Your task to perform on an android device: open app "Microsoft Authenticator" (install if not already installed) and go to login screen Image 0: 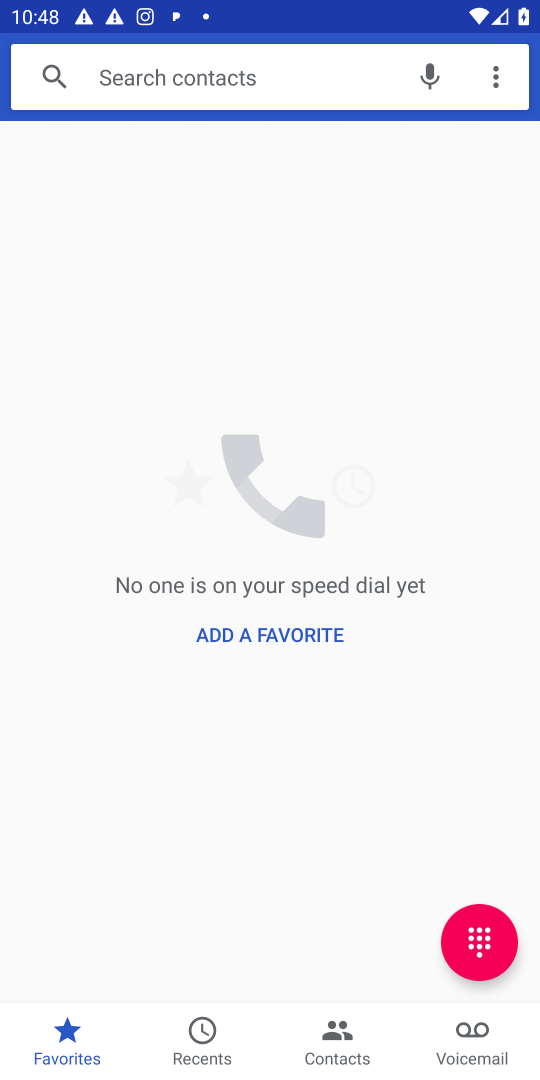
Step 0: press home button
Your task to perform on an android device: open app "Microsoft Authenticator" (install if not already installed) and go to login screen Image 1: 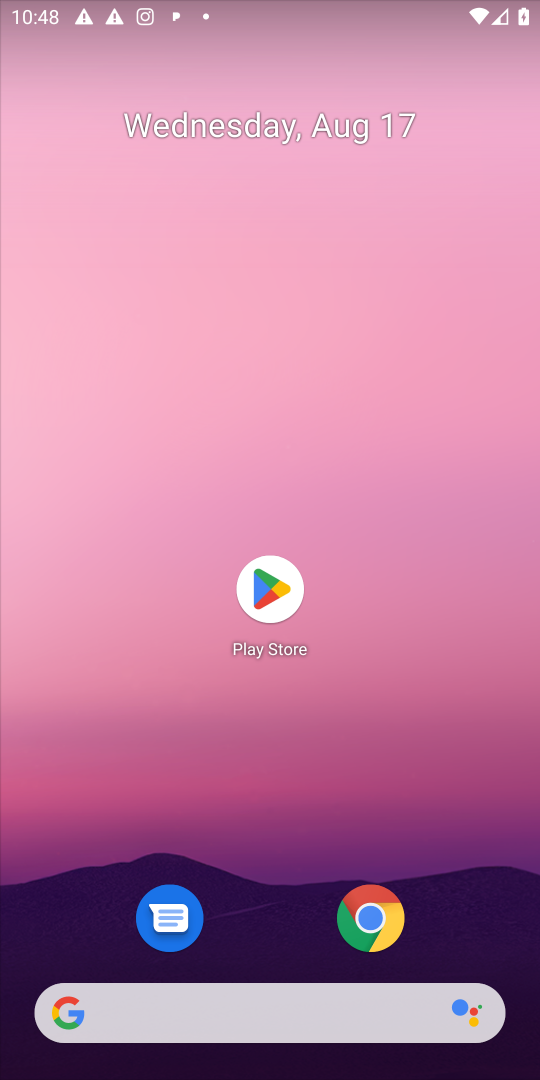
Step 1: click (266, 595)
Your task to perform on an android device: open app "Microsoft Authenticator" (install if not already installed) and go to login screen Image 2: 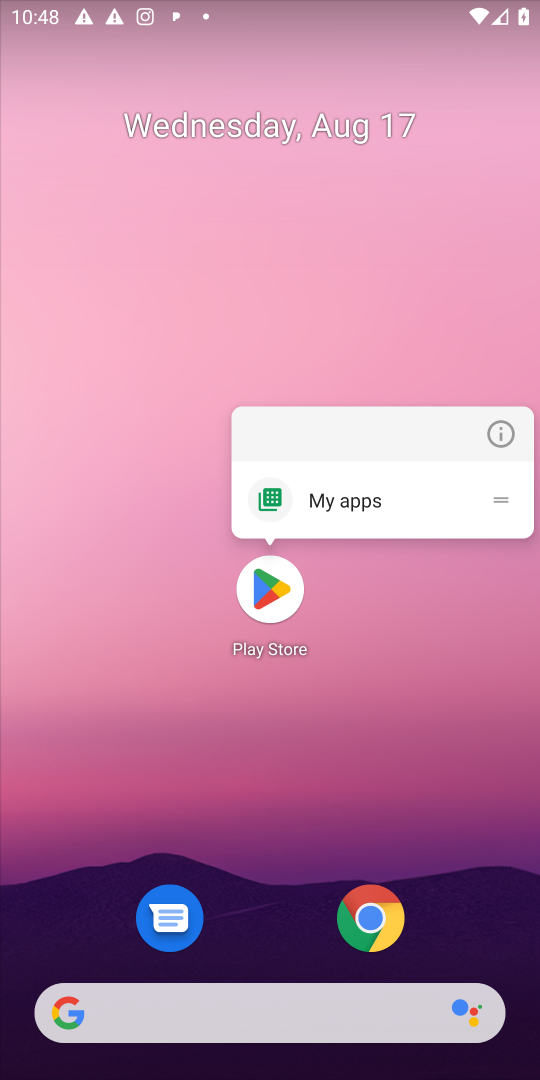
Step 2: click (266, 595)
Your task to perform on an android device: open app "Microsoft Authenticator" (install if not already installed) and go to login screen Image 3: 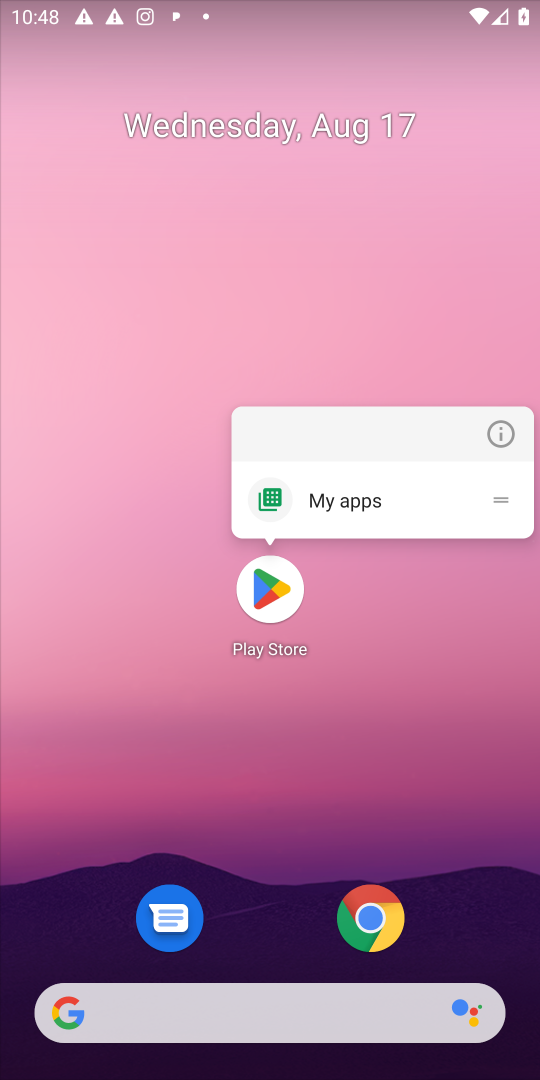
Step 3: click (266, 595)
Your task to perform on an android device: open app "Microsoft Authenticator" (install if not already installed) and go to login screen Image 4: 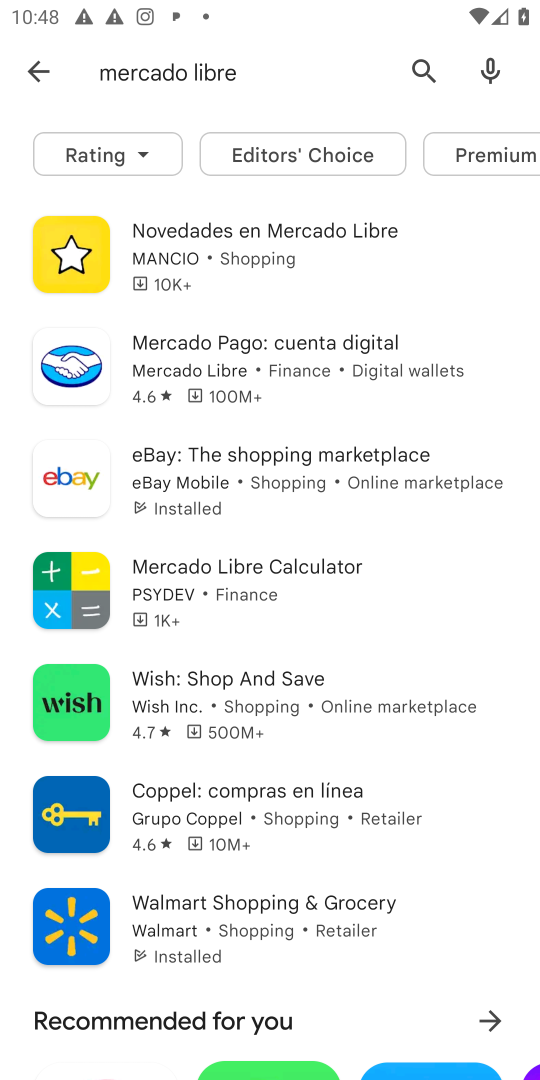
Step 4: click (420, 63)
Your task to perform on an android device: open app "Microsoft Authenticator" (install if not already installed) and go to login screen Image 5: 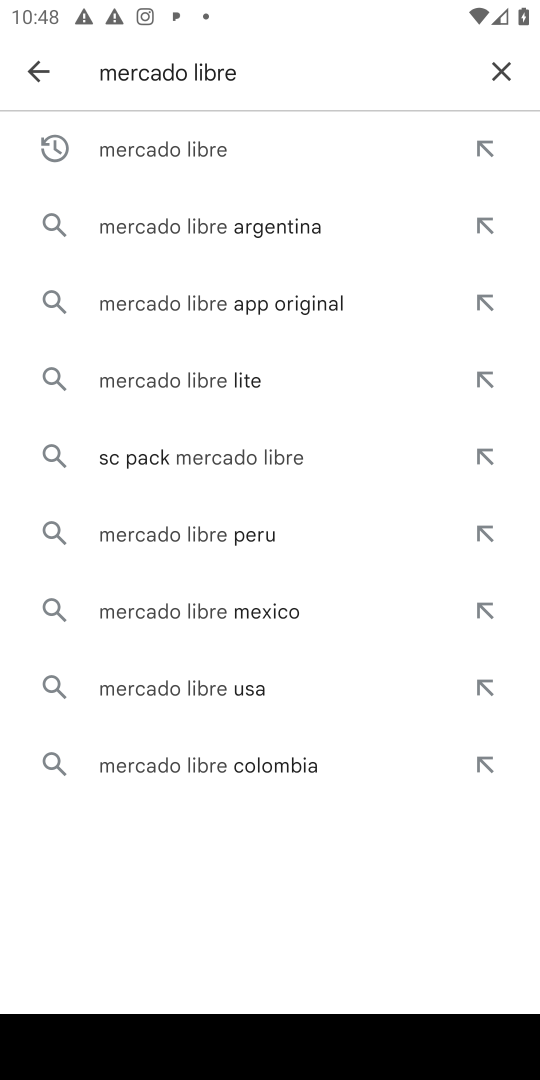
Step 5: click (497, 60)
Your task to perform on an android device: open app "Microsoft Authenticator" (install if not already installed) and go to login screen Image 6: 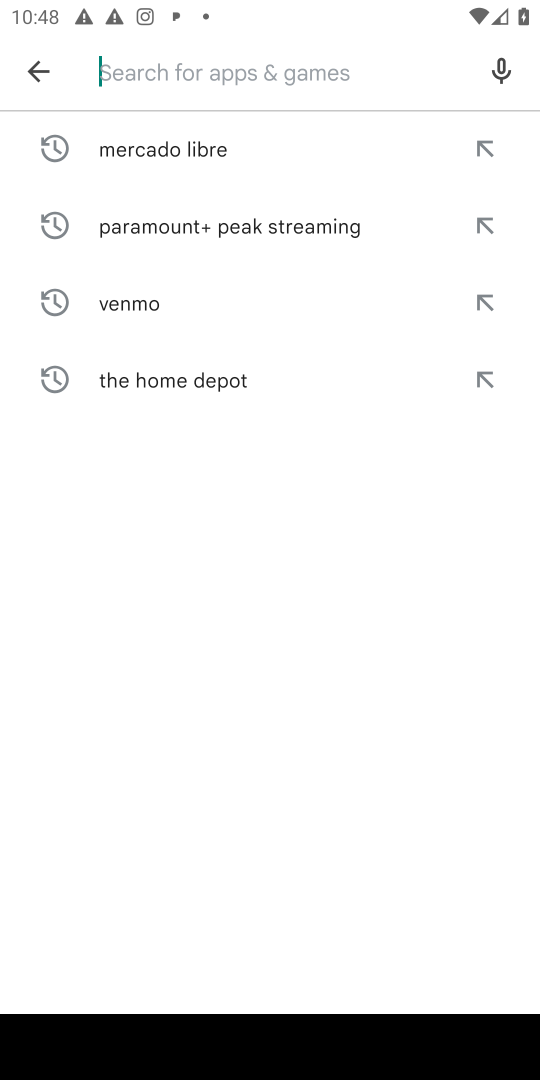
Step 6: type "Microsoft Authenticator"
Your task to perform on an android device: open app "Microsoft Authenticator" (install if not already installed) and go to login screen Image 7: 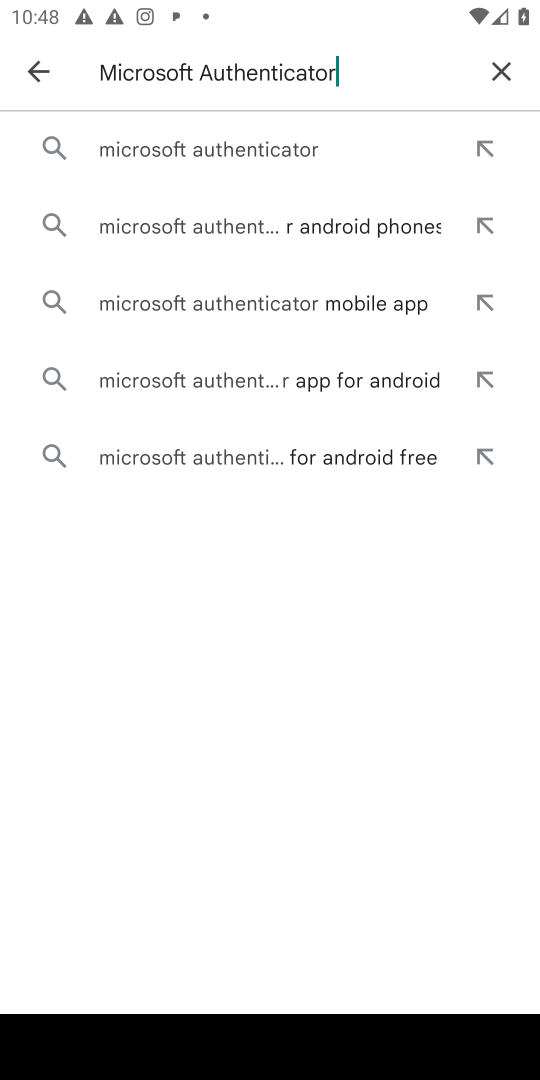
Step 7: click (263, 145)
Your task to perform on an android device: open app "Microsoft Authenticator" (install if not already installed) and go to login screen Image 8: 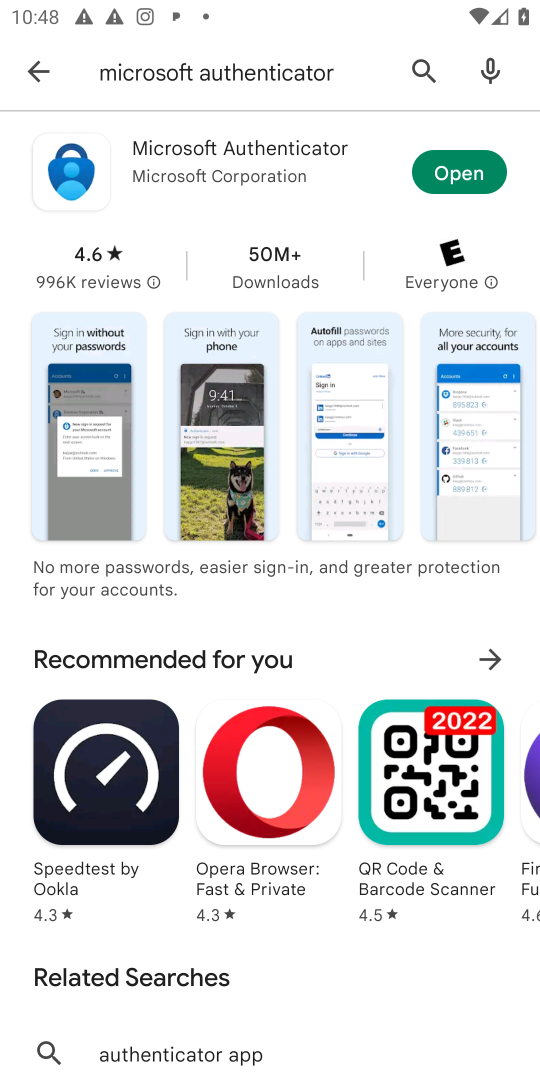
Step 8: click (478, 171)
Your task to perform on an android device: open app "Microsoft Authenticator" (install if not already installed) and go to login screen Image 9: 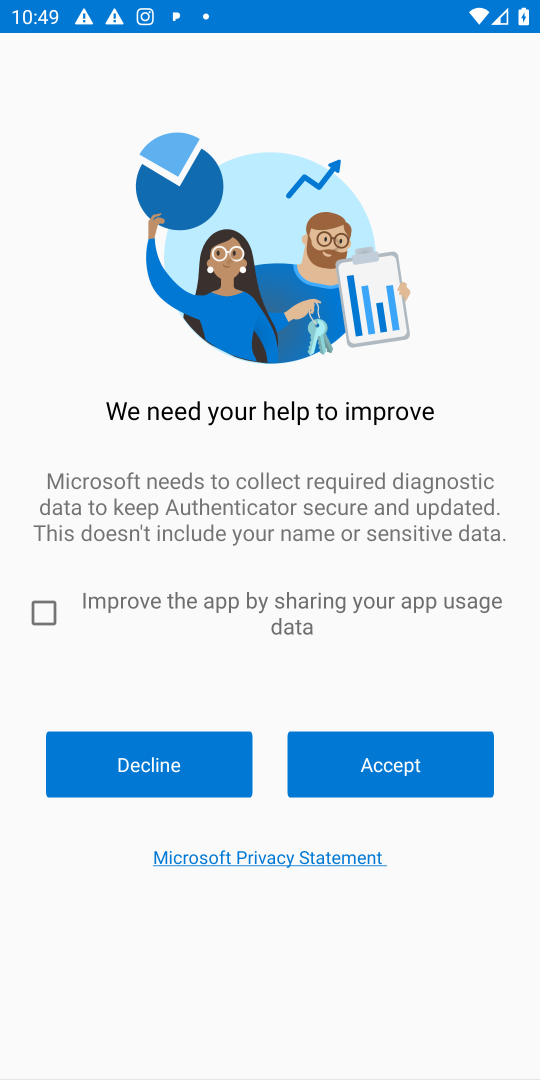
Step 9: task complete